Your task to perform on an android device: change the clock display to digital Image 0: 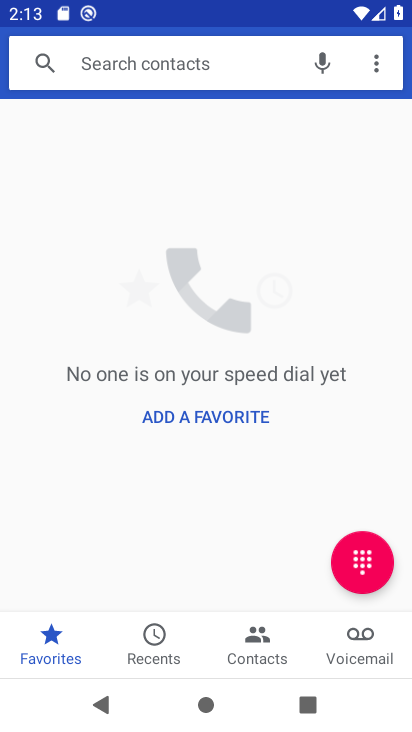
Step 0: press home button
Your task to perform on an android device: change the clock display to digital Image 1: 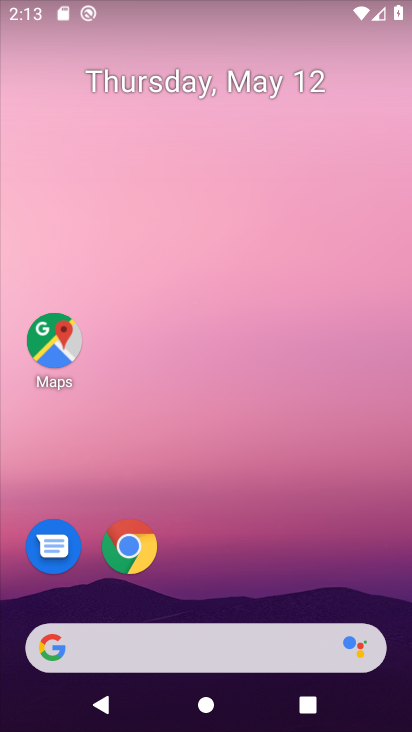
Step 1: drag from (190, 587) to (313, 80)
Your task to perform on an android device: change the clock display to digital Image 2: 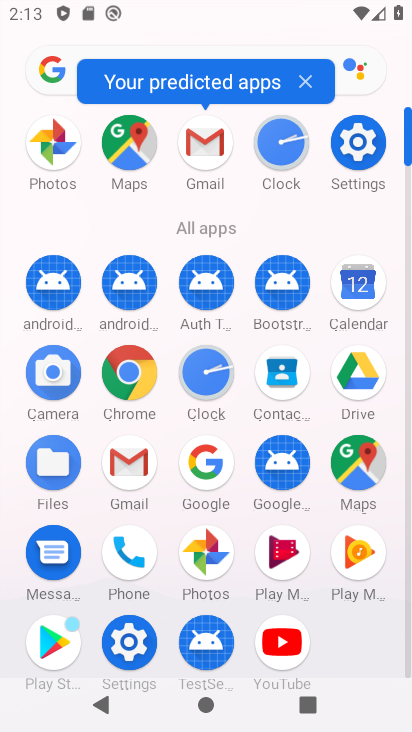
Step 2: click (185, 369)
Your task to perform on an android device: change the clock display to digital Image 3: 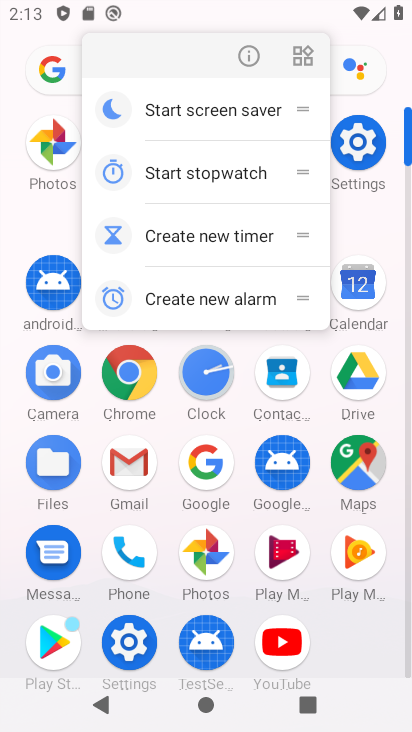
Step 3: click (206, 377)
Your task to perform on an android device: change the clock display to digital Image 4: 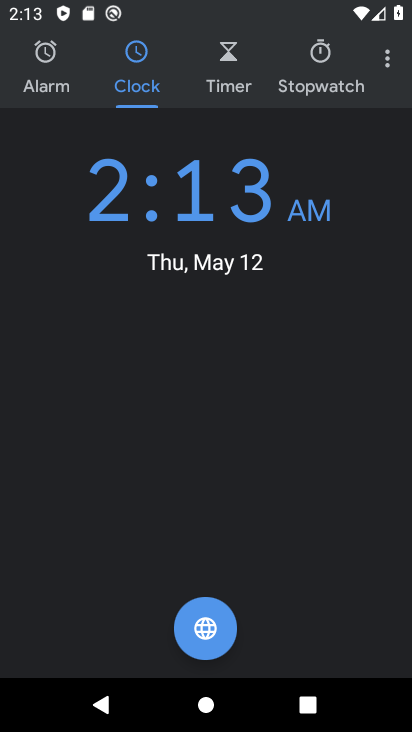
Step 4: click (374, 67)
Your task to perform on an android device: change the clock display to digital Image 5: 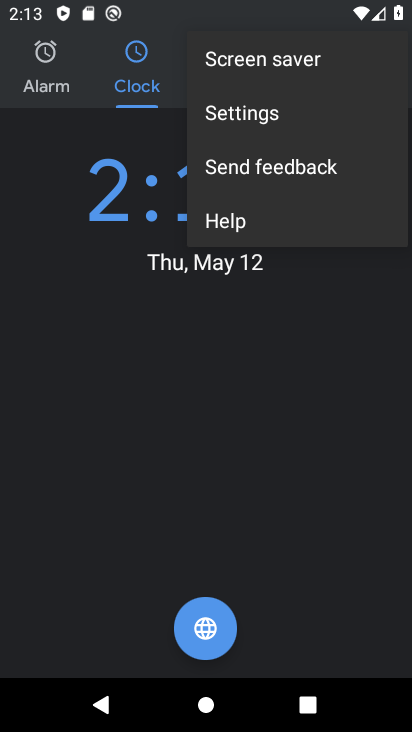
Step 5: click (346, 107)
Your task to perform on an android device: change the clock display to digital Image 6: 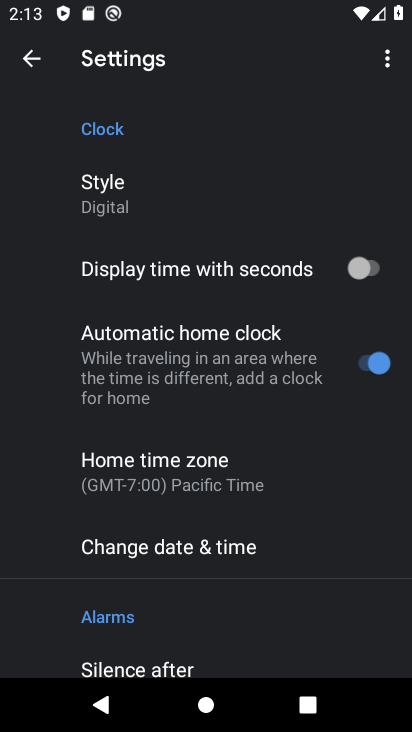
Step 6: task complete